Your task to perform on an android device: Open settings Image 0: 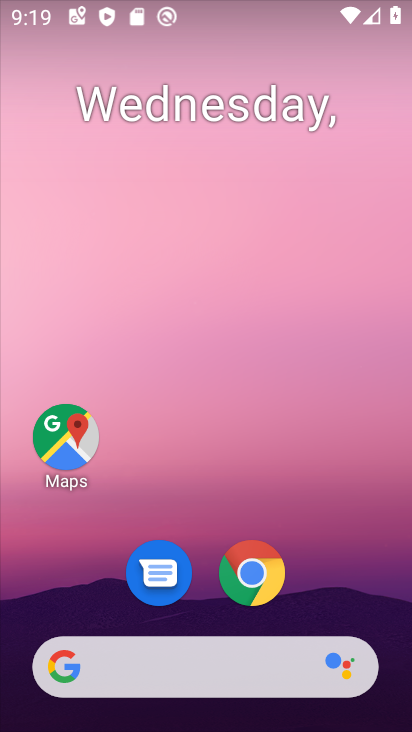
Step 0: drag from (369, 622) to (377, 135)
Your task to perform on an android device: Open settings Image 1: 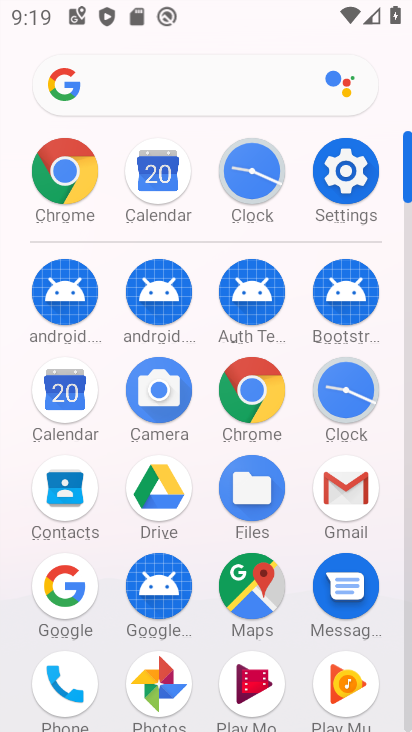
Step 1: click (338, 173)
Your task to perform on an android device: Open settings Image 2: 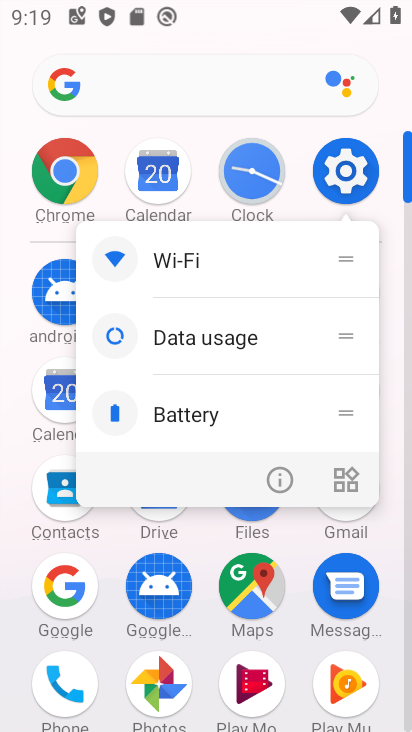
Step 2: click (342, 172)
Your task to perform on an android device: Open settings Image 3: 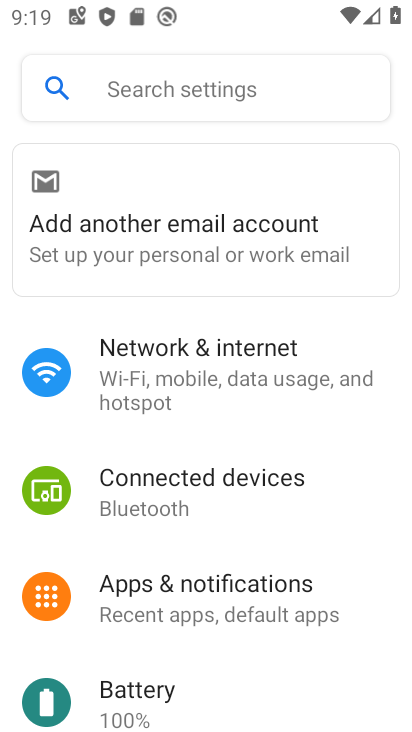
Step 3: task complete